Your task to perform on an android device: Go to Yahoo.com Image 0: 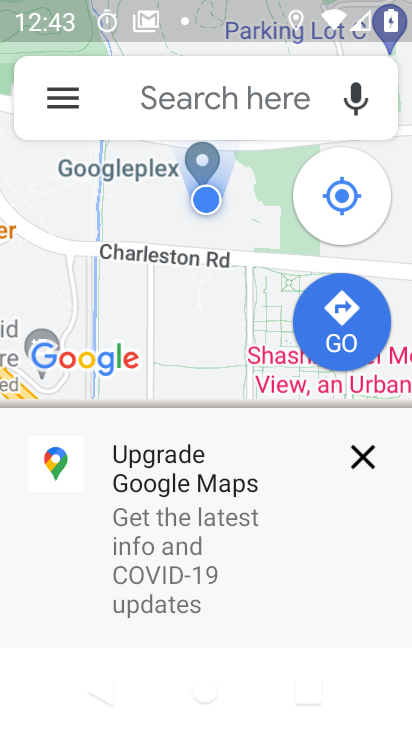
Step 0: press home button
Your task to perform on an android device: Go to Yahoo.com Image 1: 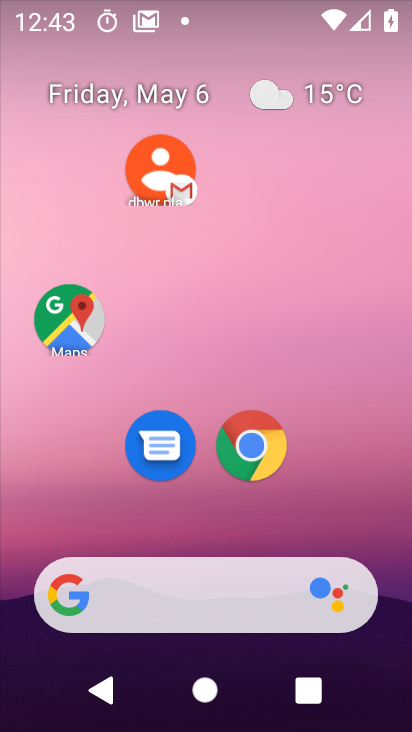
Step 1: drag from (382, 558) to (175, 31)
Your task to perform on an android device: Go to Yahoo.com Image 2: 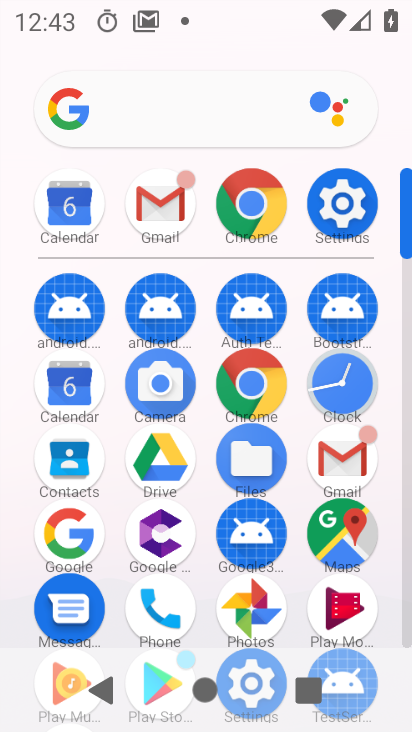
Step 2: click (230, 204)
Your task to perform on an android device: Go to Yahoo.com Image 3: 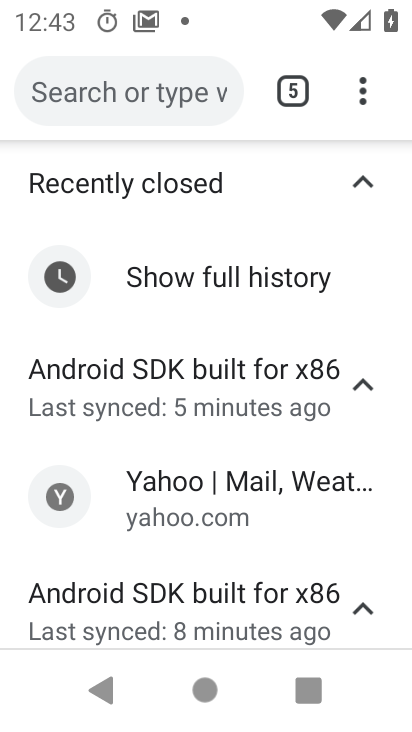
Step 3: drag from (359, 83) to (75, 189)
Your task to perform on an android device: Go to Yahoo.com Image 4: 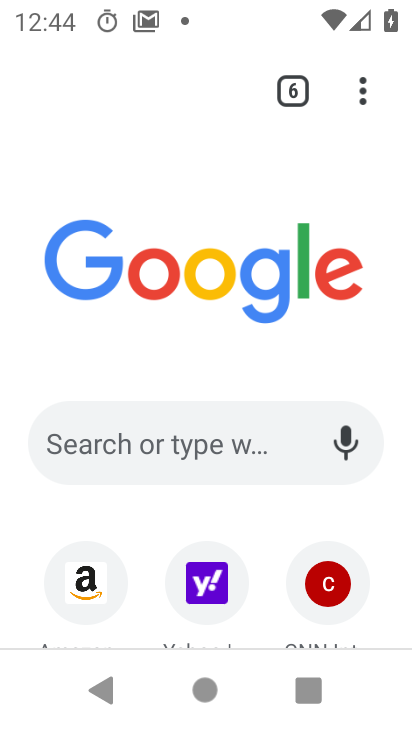
Step 4: drag from (268, 591) to (213, 259)
Your task to perform on an android device: Go to Yahoo.com Image 5: 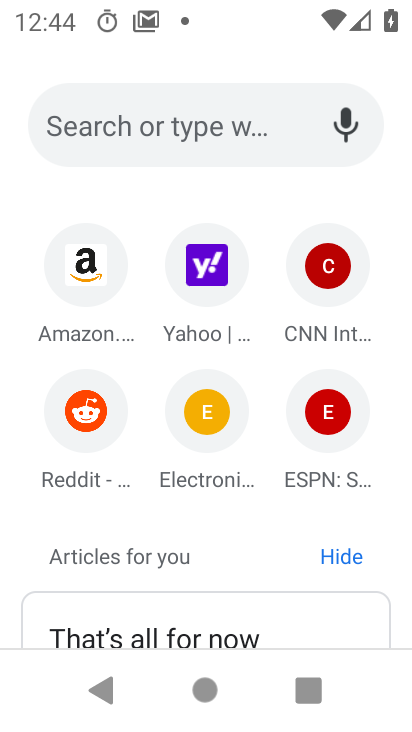
Step 5: click (198, 277)
Your task to perform on an android device: Go to Yahoo.com Image 6: 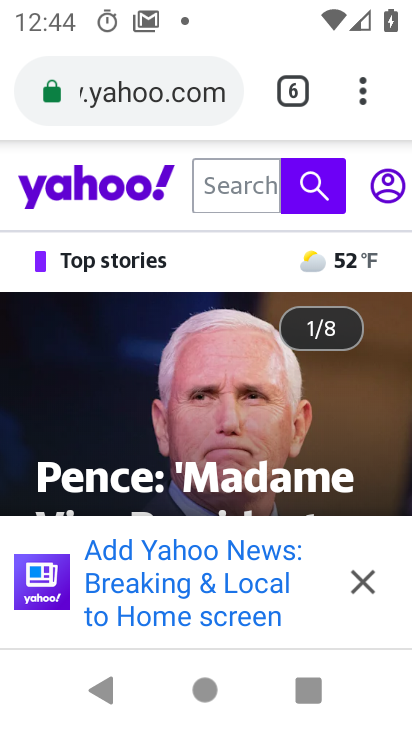
Step 6: task complete